Your task to perform on an android device: open app "LinkedIn" Image 0: 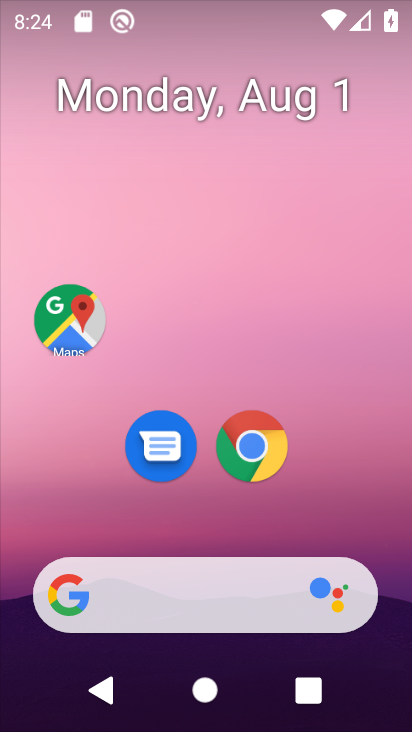
Step 0: drag from (216, 537) to (268, 131)
Your task to perform on an android device: open app "LinkedIn" Image 1: 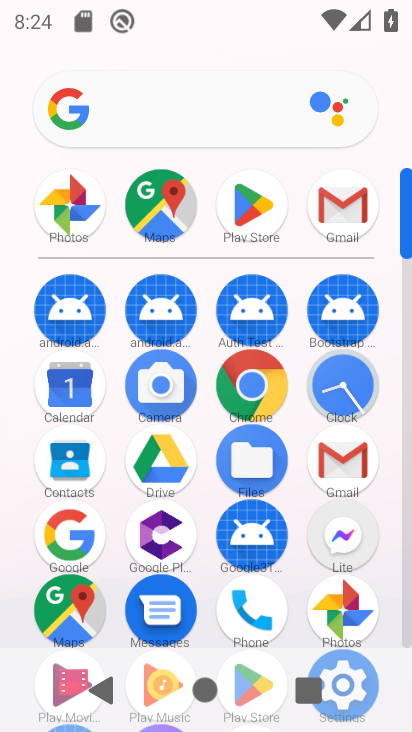
Step 1: click (247, 199)
Your task to perform on an android device: open app "LinkedIn" Image 2: 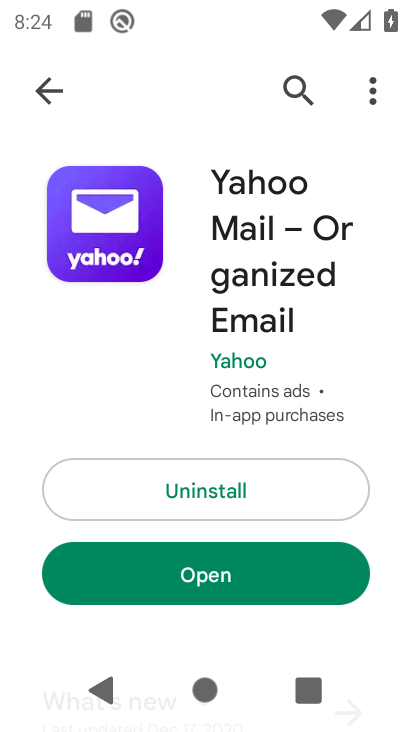
Step 2: click (278, 99)
Your task to perform on an android device: open app "LinkedIn" Image 3: 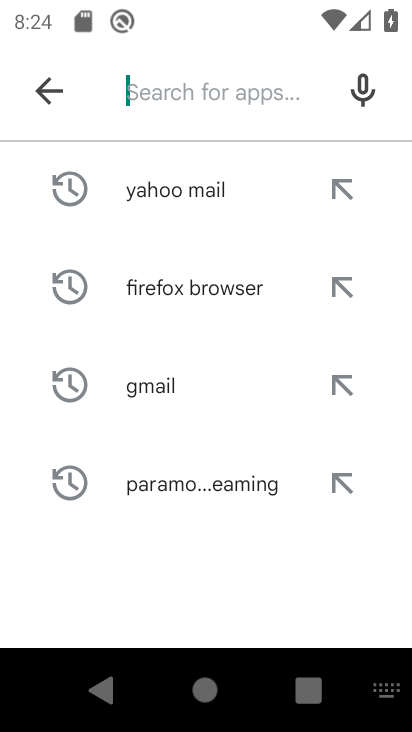
Step 3: type "LinkedIn"
Your task to perform on an android device: open app "LinkedIn" Image 4: 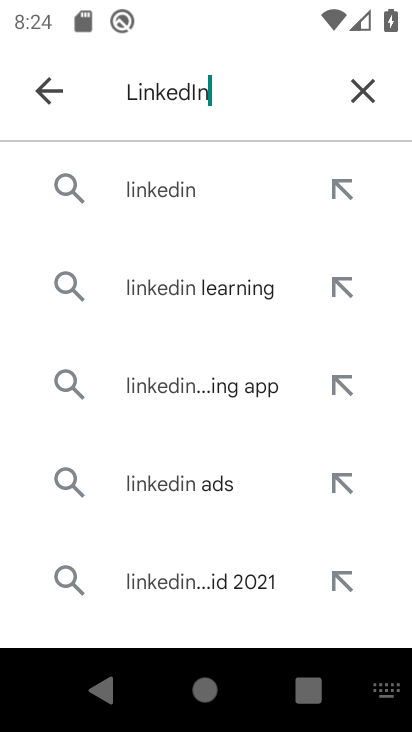
Step 4: click (202, 188)
Your task to perform on an android device: open app "LinkedIn" Image 5: 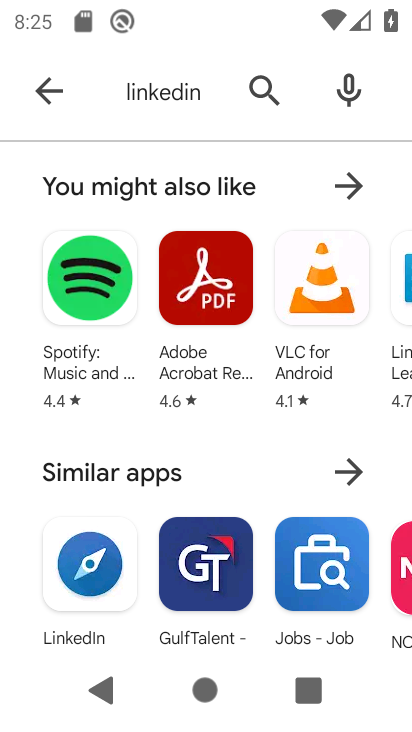
Step 5: drag from (238, 438) to (275, 19)
Your task to perform on an android device: open app "LinkedIn" Image 6: 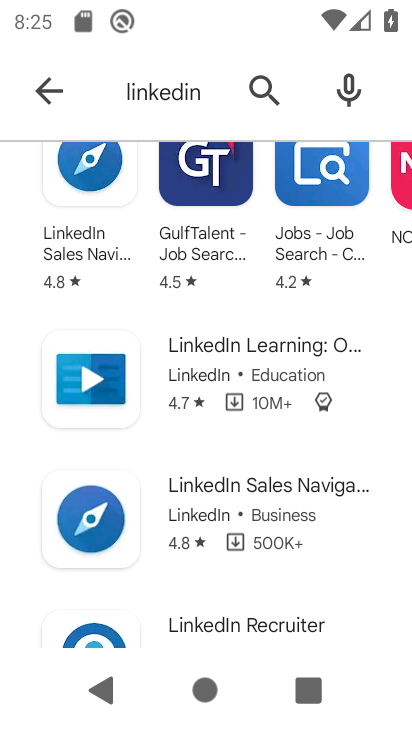
Step 6: drag from (318, 335) to (323, 93)
Your task to perform on an android device: open app "LinkedIn" Image 7: 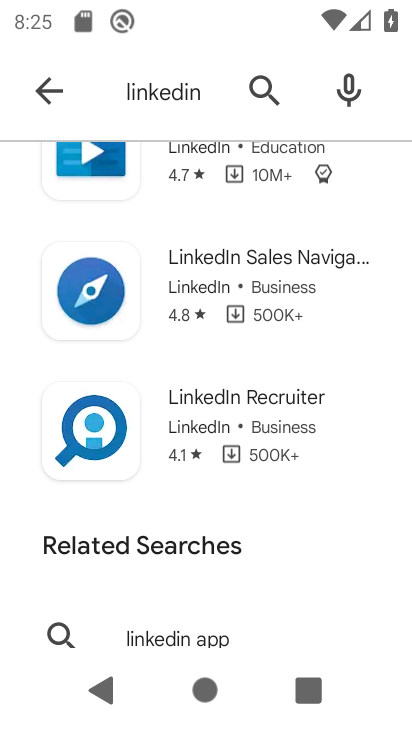
Step 7: drag from (272, 256) to (269, 418)
Your task to perform on an android device: open app "LinkedIn" Image 8: 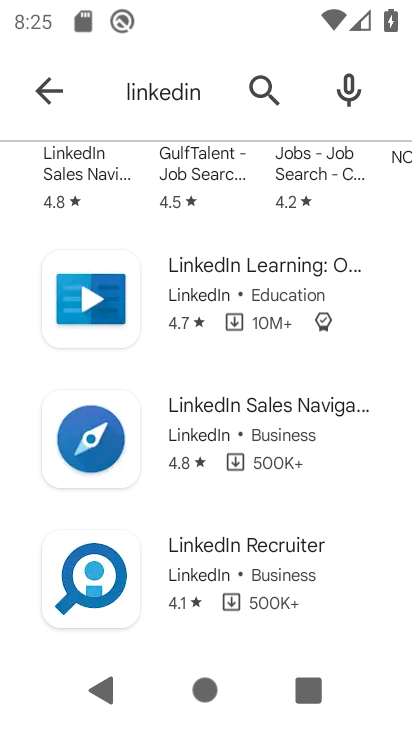
Step 8: click (233, 281)
Your task to perform on an android device: open app "LinkedIn" Image 9: 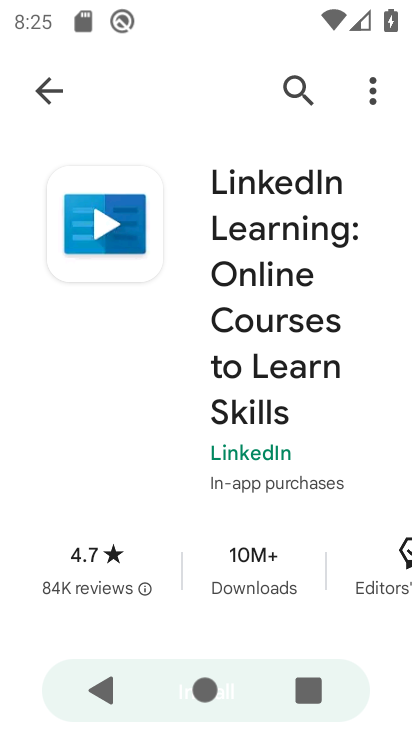
Step 9: task complete